Your task to perform on an android device: turn on notifications settings in the gmail app Image 0: 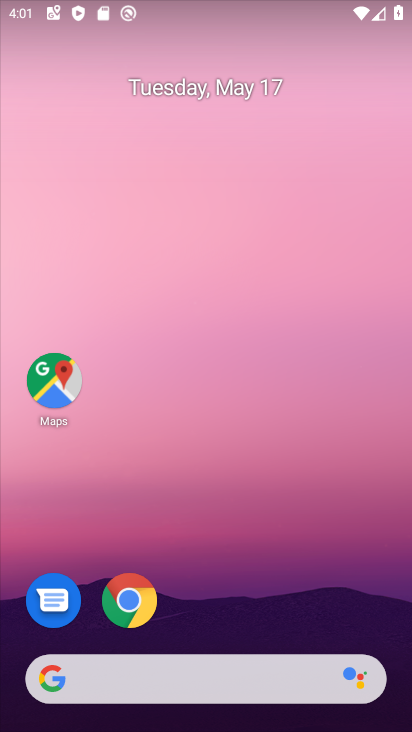
Step 0: drag from (195, 615) to (220, 2)
Your task to perform on an android device: turn on notifications settings in the gmail app Image 1: 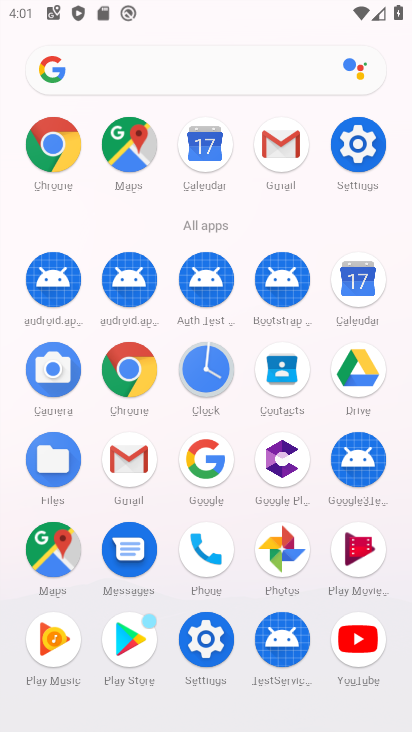
Step 1: click (133, 468)
Your task to perform on an android device: turn on notifications settings in the gmail app Image 2: 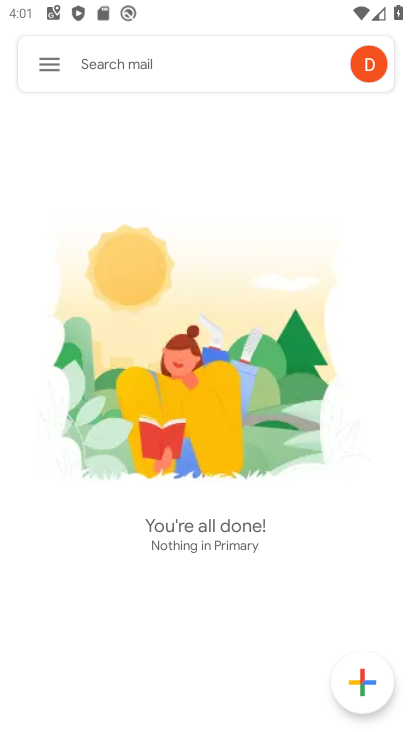
Step 2: click (45, 63)
Your task to perform on an android device: turn on notifications settings in the gmail app Image 3: 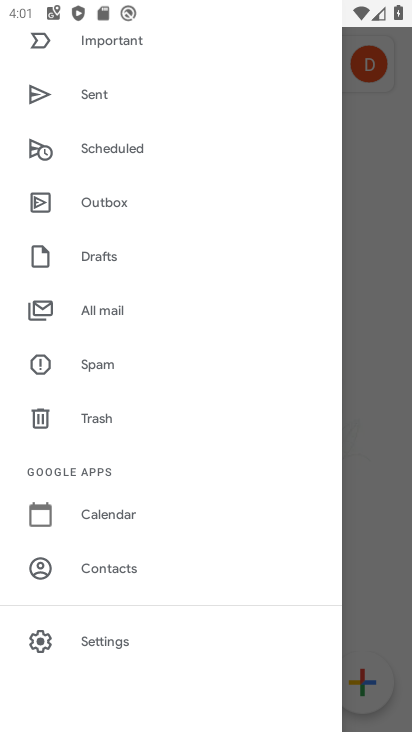
Step 3: click (110, 648)
Your task to perform on an android device: turn on notifications settings in the gmail app Image 4: 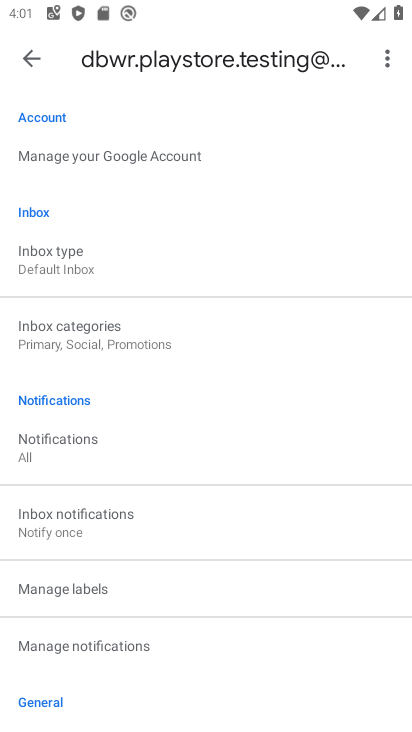
Step 4: click (34, 61)
Your task to perform on an android device: turn on notifications settings in the gmail app Image 5: 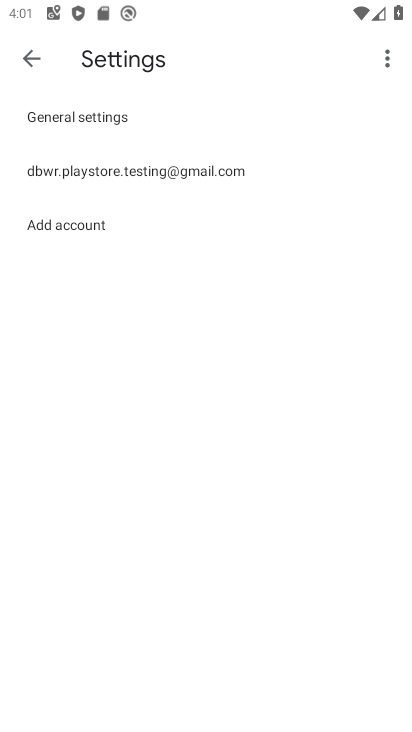
Step 5: click (120, 118)
Your task to perform on an android device: turn on notifications settings in the gmail app Image 6: 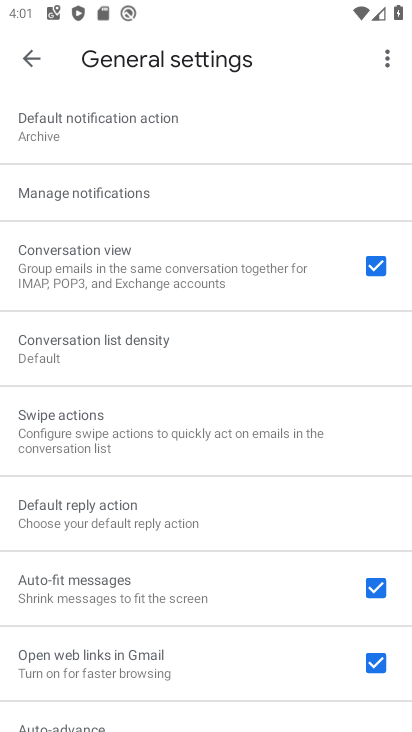
Step 6: click (115, 194)
Your task to perform on an android device: turn on notifications settings in the gmail app Image 7: 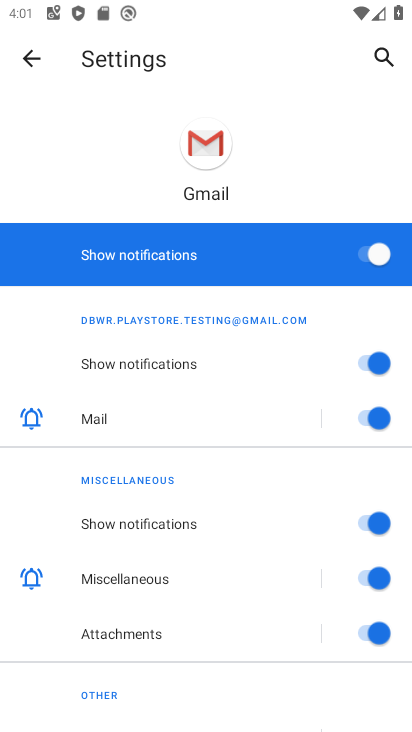
Step 7: task complete